Your task to perform on an android device: check android version Image 0: 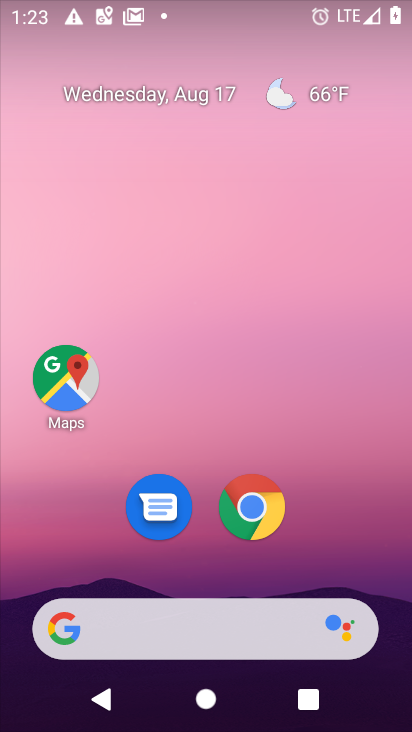
Step 0: drag from (267, 589) to (231, 21)
Your task to perform on an android device: check android version Image 1: 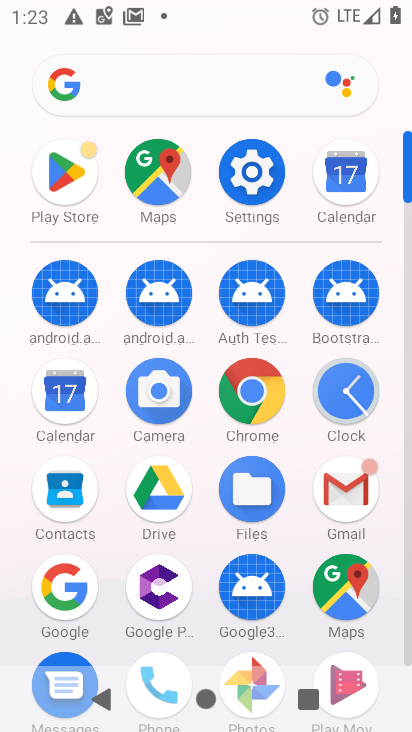
Step 1: click (267, 144)
Your task to perform on an android device: check android version Image 2: 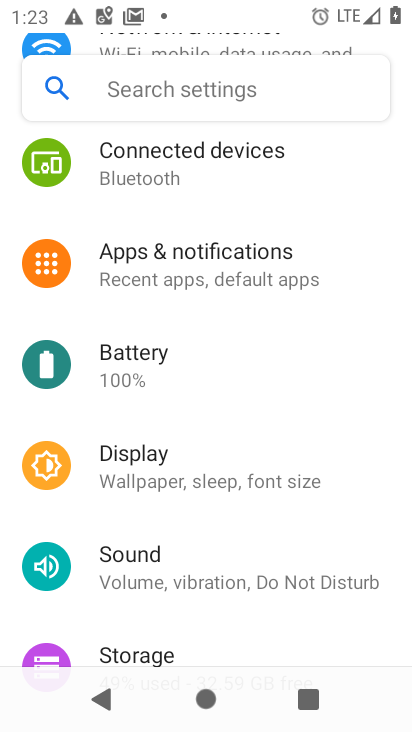
Step 2: drag from (220, 435) to (255, 176)
Your task to perform on an android device: check android version Image 3: 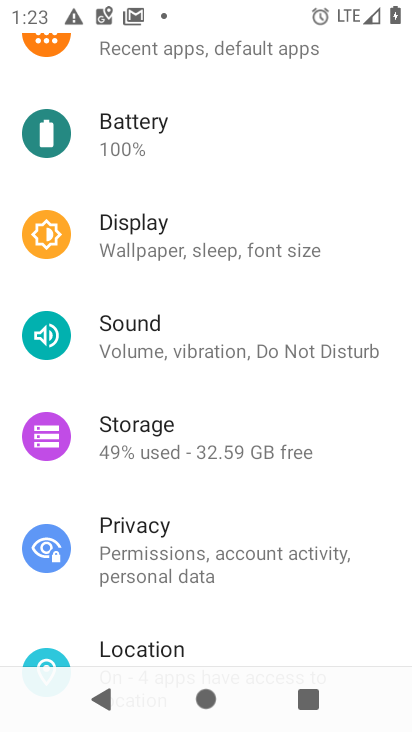
Step 3: drag from (260, 552) to (220, 260)
Your task to perform on an android device: check android version Image 4: 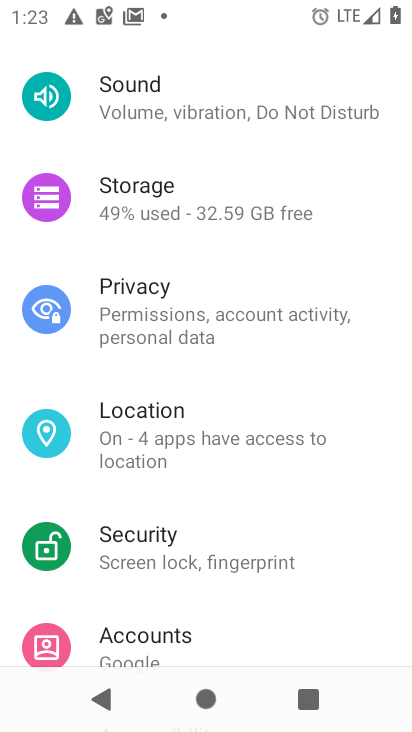
Step 4: drag from (214, 644) to (212, 218)
Your task to perform on an android device: check android version Image 5: 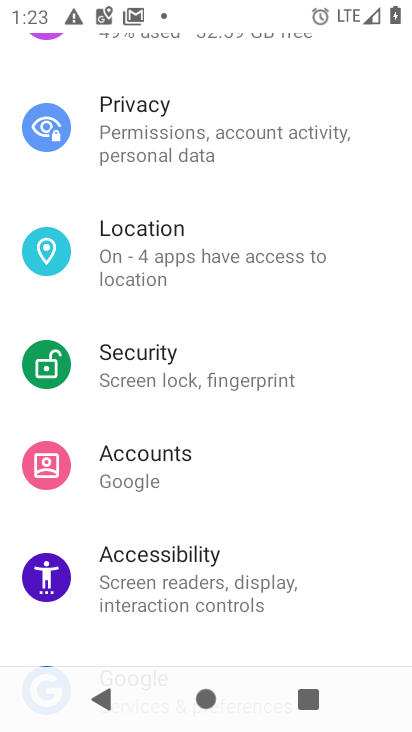
Step 5: drag from (206, 499) to (97, 48)
Your task to perform on an android device: check android version Image 6: 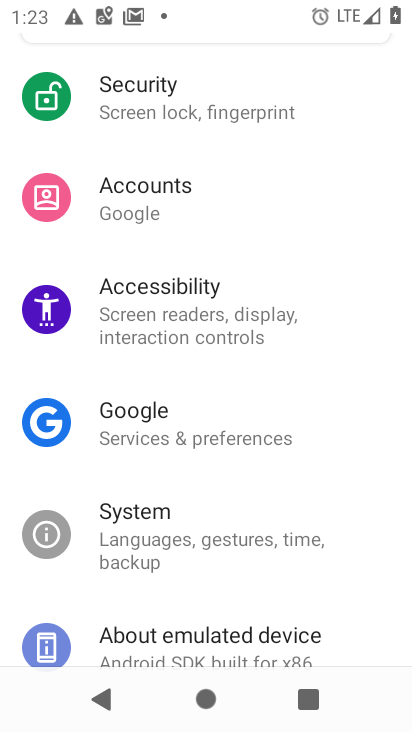
Step 6: click (151, 615)
Your task to perform on an android device: check android version Image 7: 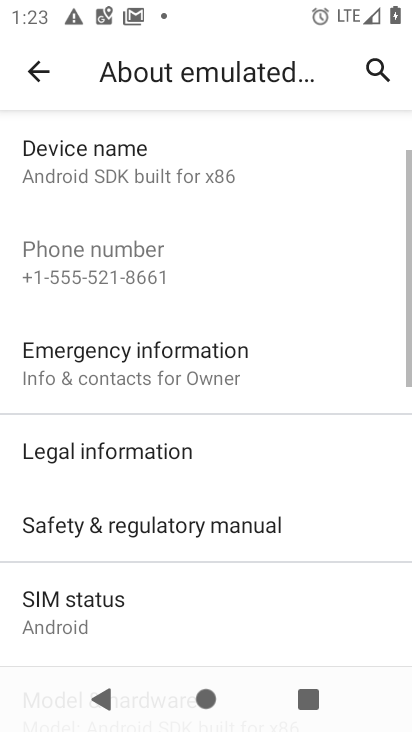
Step 7: drag from (172, 544) to (27, 0)
Your task to perform on an android device: check android version Image 8: 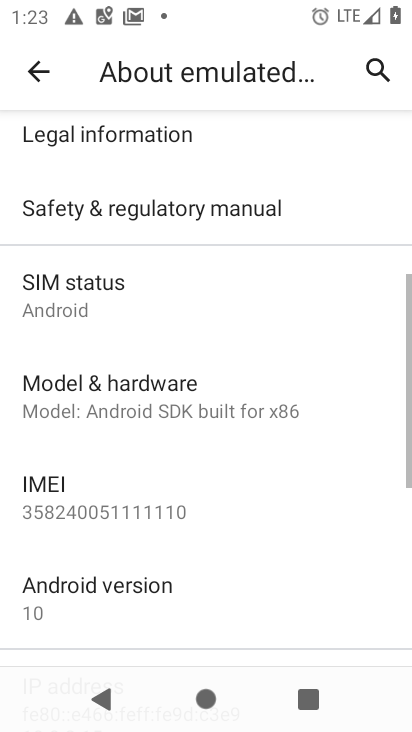
Step 8: click (79, 618)
Your task to perform on an android device: check android version Image 9: 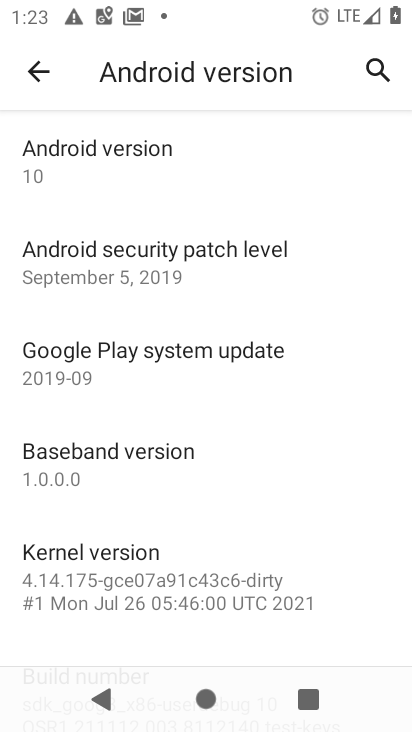
Step 9: task complete